Your task to perform on an android device: turn pop-ups on in chrome Image 0: 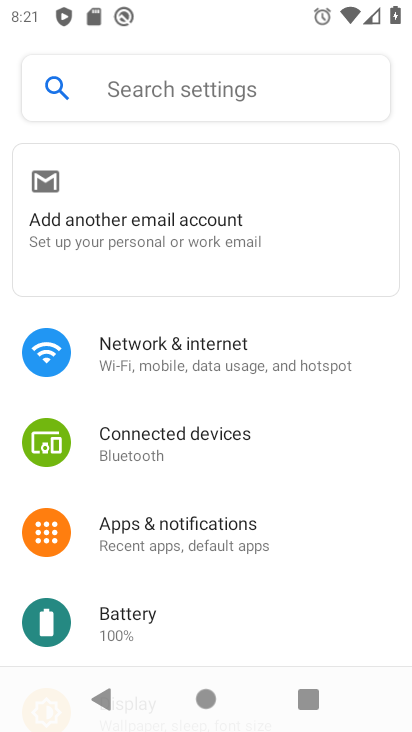
Step 0: press home button
Your task to perform on an android device: turn pop-ups on in chrome Image 1: 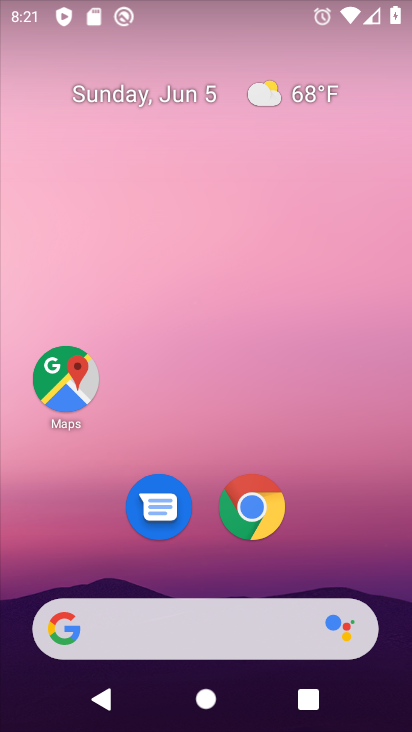
Step 1: click (255, 505)
Your task to perform on an android device: turn pop-ups on in chrome Image 2: 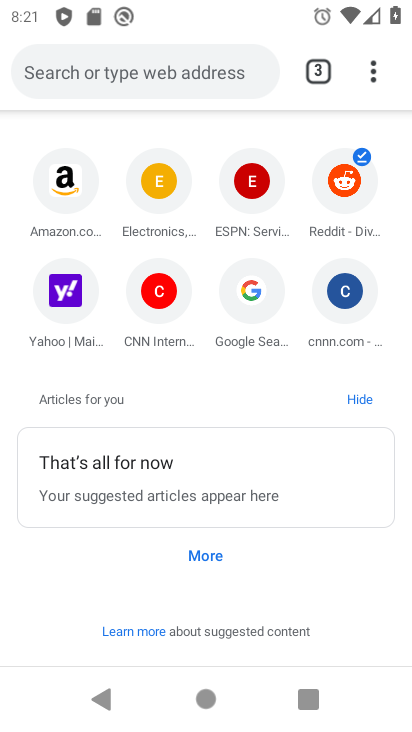
Step 2: click (373, 77)
Your task to perform on an android device: turn pop-ups on in chrome Image 3: 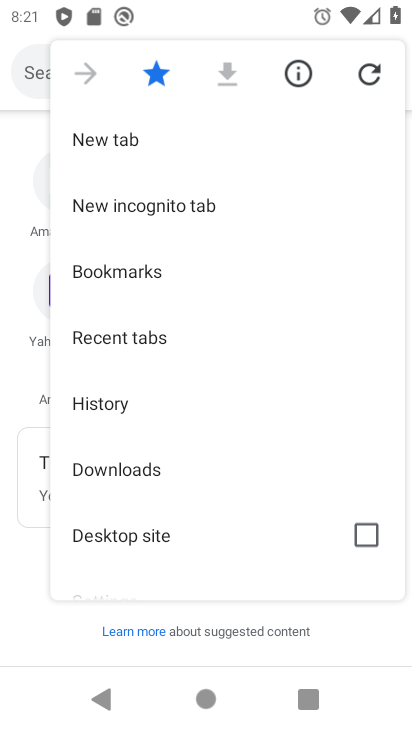
Step 3: drag from (124, 576) to (124, 120)
Your task to perform on an android device: turn pop-ups on in chrome Image 4: 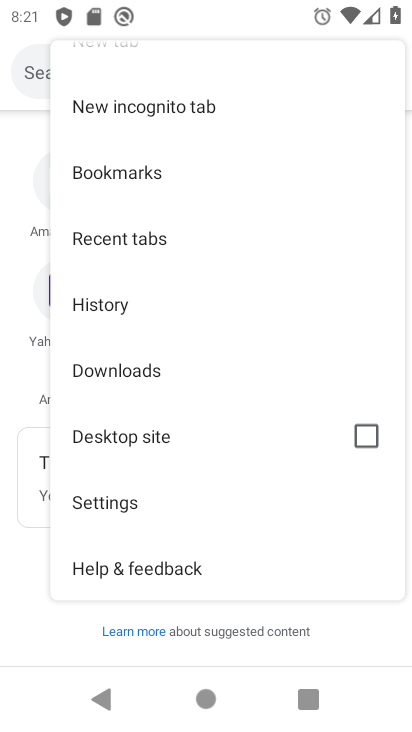
Step 4: click (116, 501)
Your task to perform on an android device: turn pop-ups on in chrome Image 5: 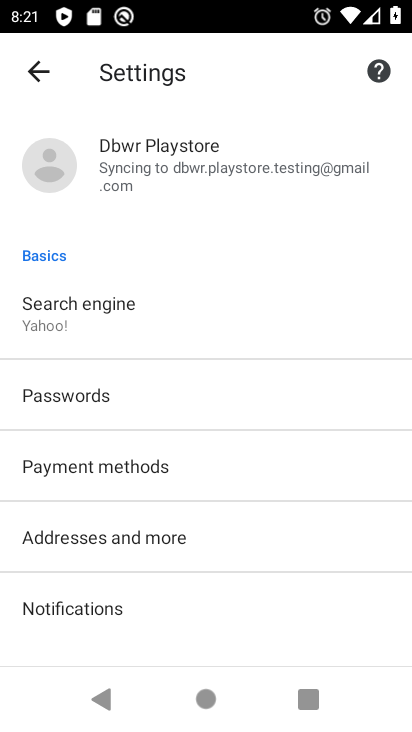
Step 5: drag from (116, 645) to (123, 252)
Your task to perform on an android device: turn pop-ups on in chrome Image 6: 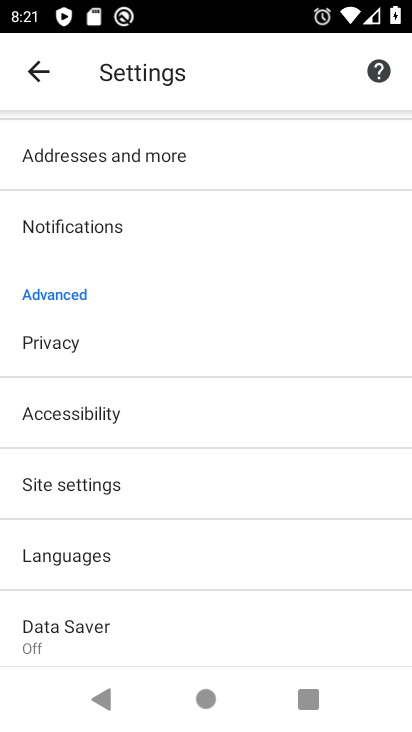
Step 6: click (89, 482)
Your task to perform on an android device: turn pop-ups on in chrome Image 7: 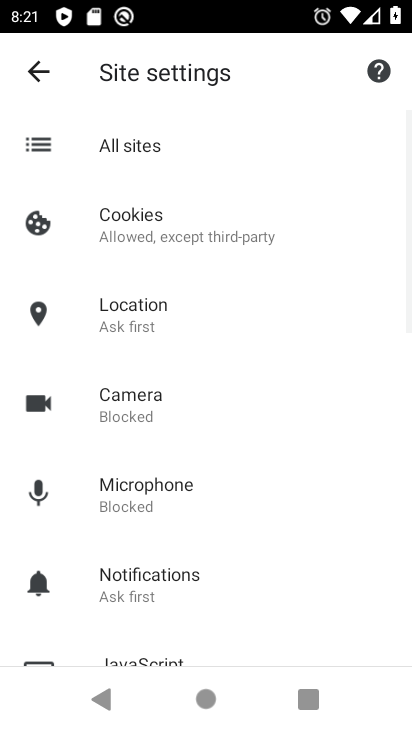
Step 7: drag from (151, 625) to (151, 247)
Your task to perform on an android device: turn pop-ups on in chrome Image 8: 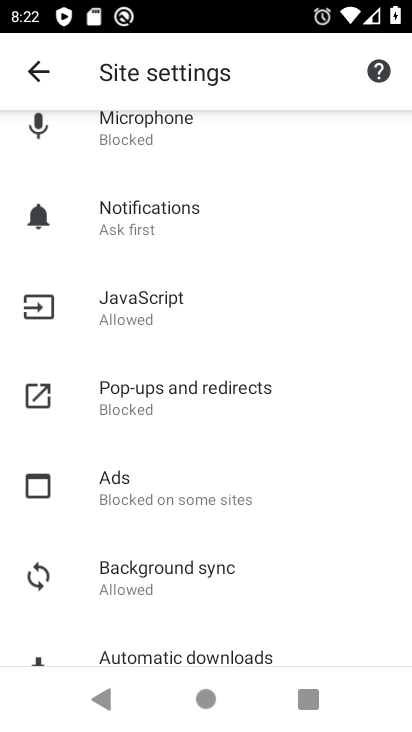
Step 8: click (140, 403)
Your task to perform on an android device: turn pop-ups on in chrome Image 9: 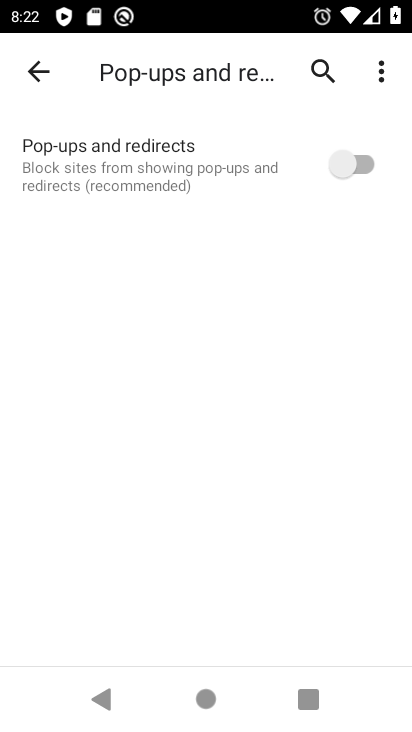
Step 9: click (361, 166)
Your task to perform on an android device: turn pop-ups on in chrome Image 10: 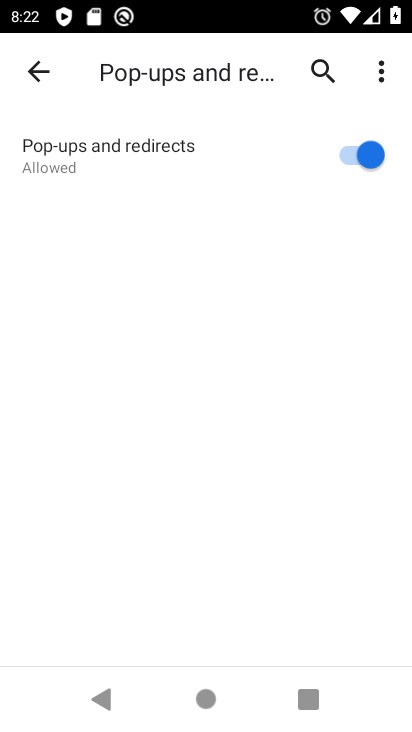
Step 10: task complete